Your task to perform on an android device: Open calendar and show me the second week of next month Image 0: 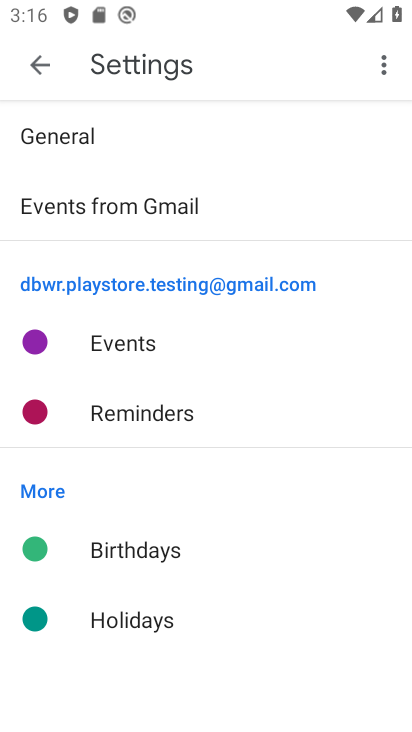
Step 0: press home button
Your task to perform on an android device: Open calendar and show me the second week of next month Image 1: 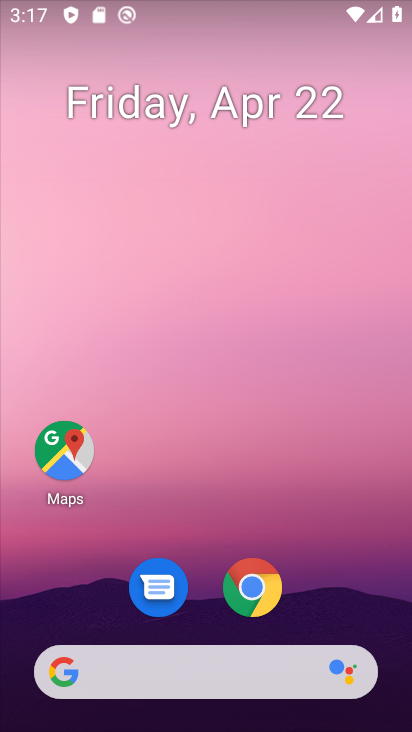
Step 1: drag from (308, 557) to (259, 24)
Your task to perform on an android device: Open calendar and show me the second week of next month Image 2: 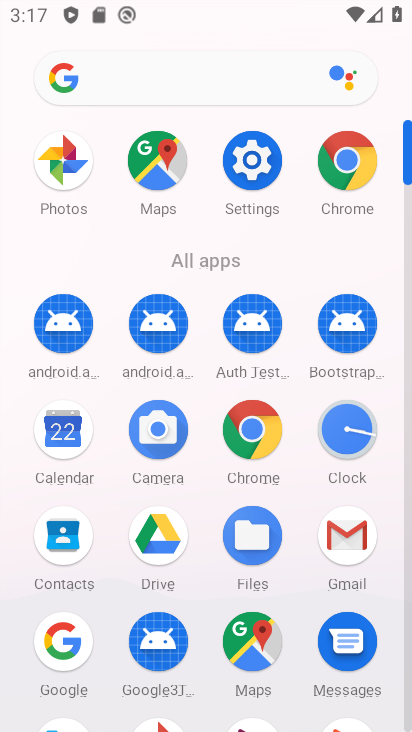
Step 2: click (56, 432)
Your task to perform on an android device: Open calendar and show me the second week of next month Image 3: 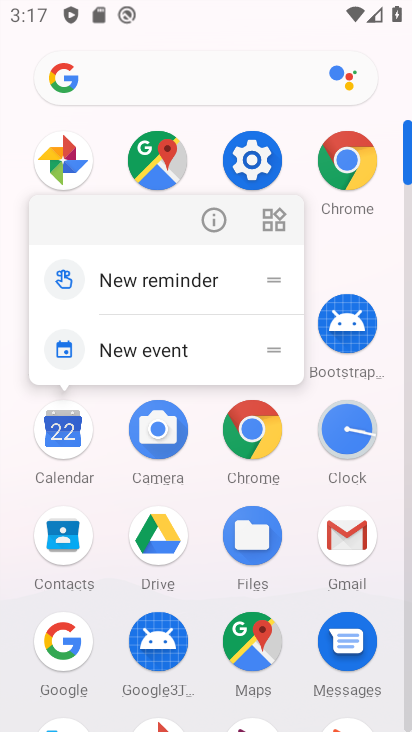
Step 3: click (56, 432)
Your task to perform on an android device: Open calendar and show me the second week of next month Image 4: 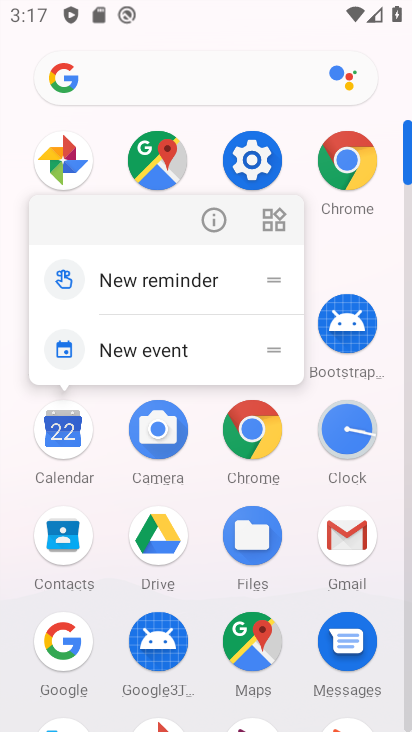
Step 4: click (56, 432)
Your task to perform on an android device: Open calendar and show me the second week of next month Image 5: 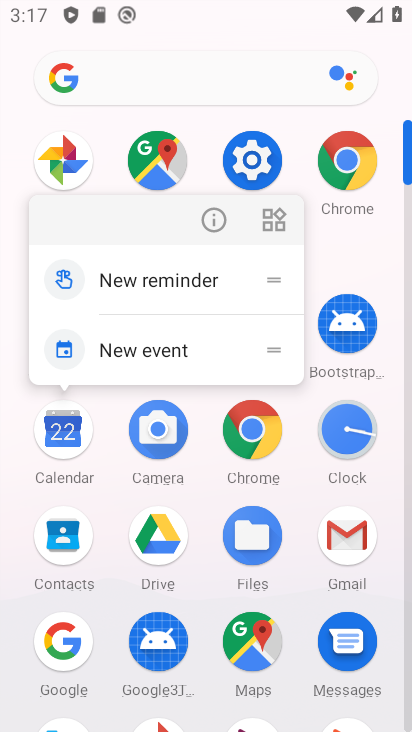
Step 5: click (55, 432)
Your task to perform on an android device: Open calendar and show me the second week of next month Image 6: 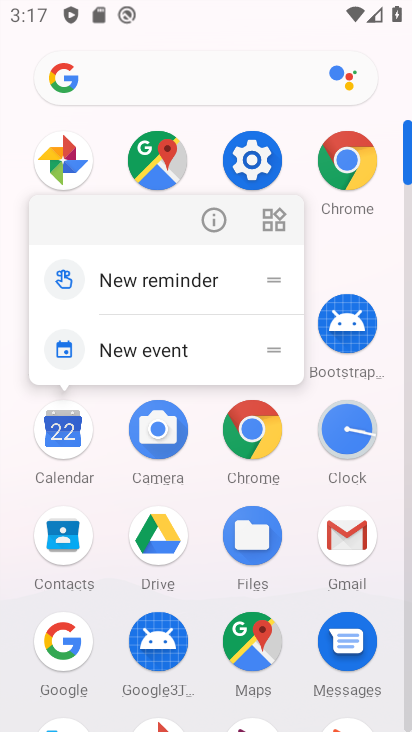
Step 6: click (55, 432)
Your task to perform on an android device: Open calendar and show me the second week of next month Image 7: 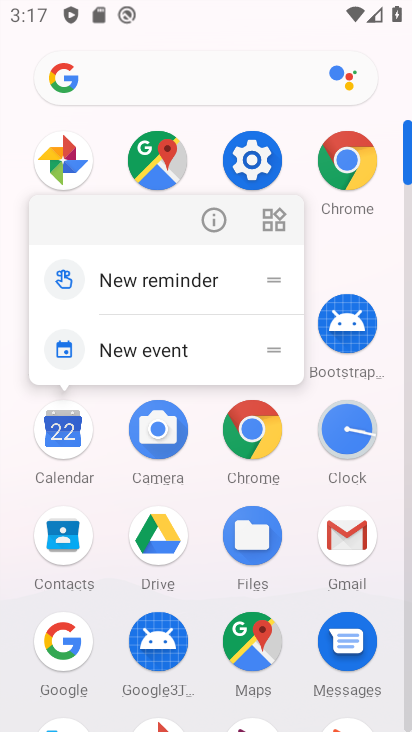
Step 7: click (55, 432)
Your task to perform on an android device: Open calendar and show me the second week of next month Image 8: 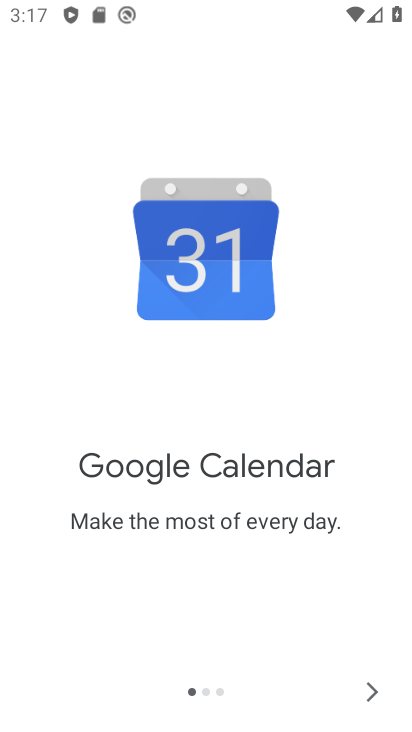
Step 8: click (382, 685)
Your task to perform on an android device: Open calendar and show me the second week of next month Image 9: 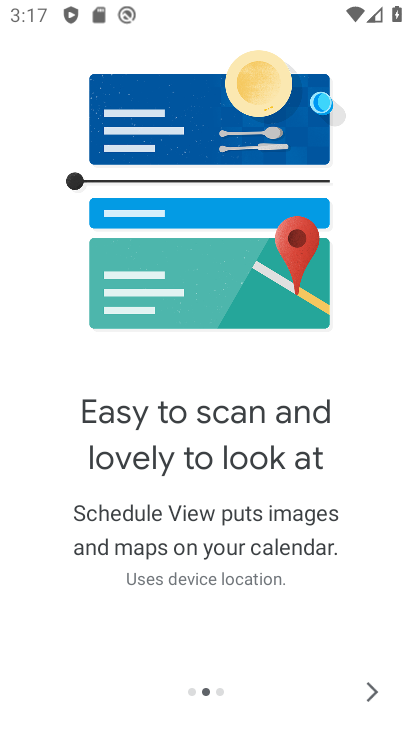
Step 9: click (374, 687)
Your task to perform on an android device: Open calendar and show me the second week of next month Image 10: 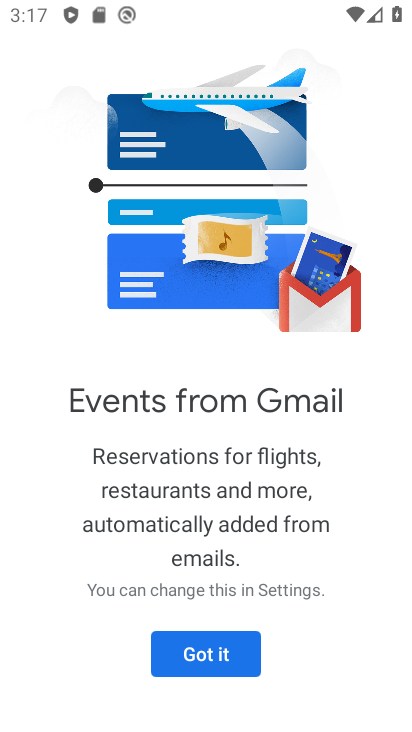
Step 10: click (229, 636)
Your task to perform on an android device: Open calendar and show me the second week of next month Image 11: 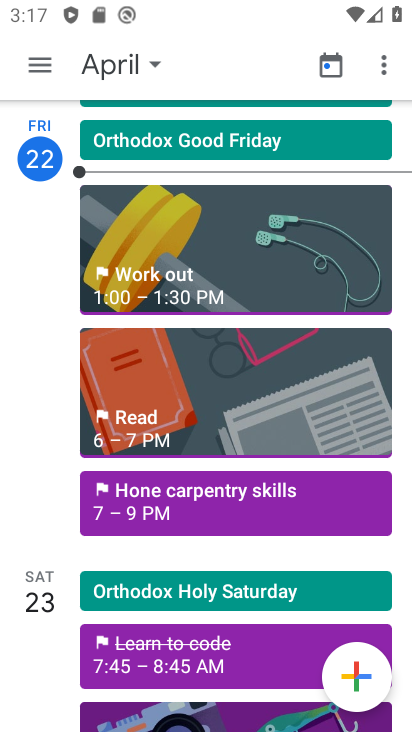
Step 11: click (17, 64)
Your task to perform on an android device: Open calendar and show me the second week of next month Image 12: 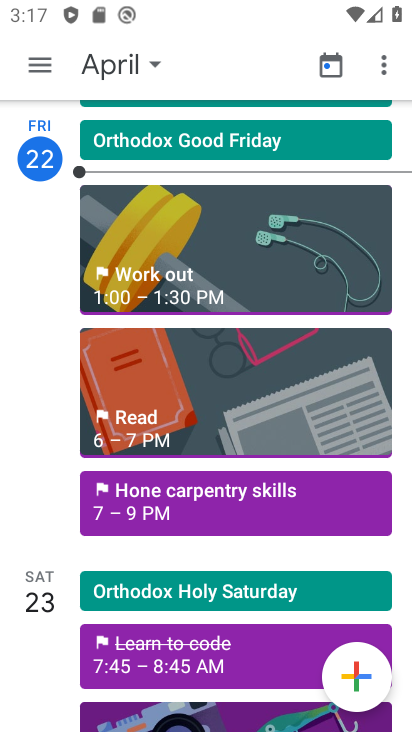
Step 12: click (45, 69)
Your task to perform on an android device: Open calendar and show me the second week of next month Image 13: 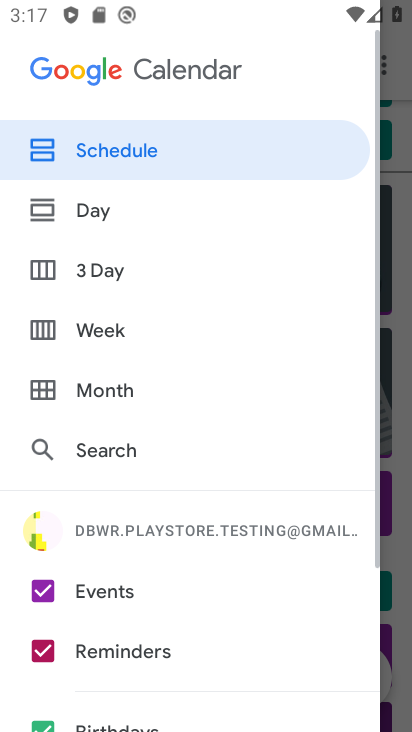
Step 13: click (128, 325)
Your task to perform on an android device: Open calendar and show me the second week of next month Image 14: 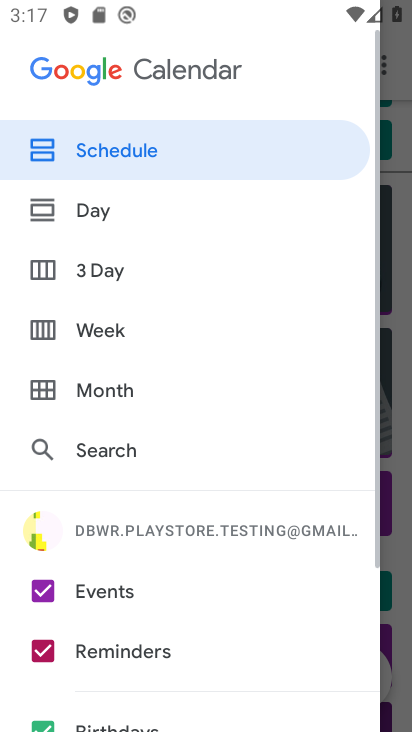
Step 14: click (109, 330)
Your task to perform on an android device: Open calendar and show me the second week of next month Image 15: 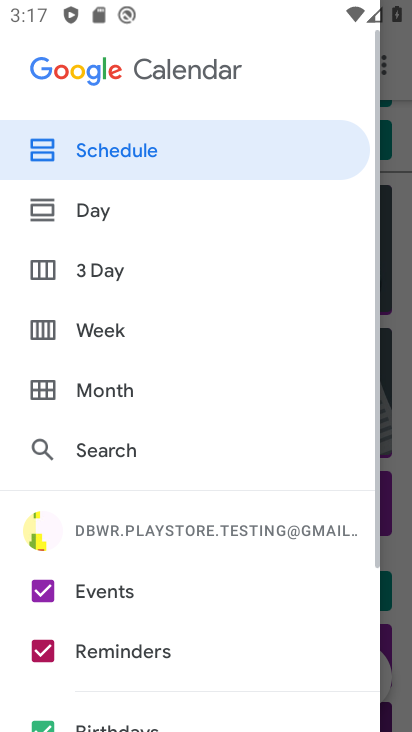
Step 15: click (109, 330)
Your task to perform on an android device: Open calendar and show me the second week of next month Image 16: 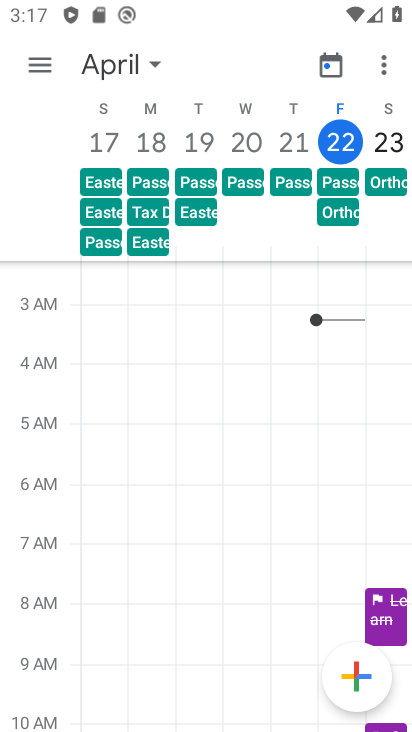
Step 16: click (135, 57)
Your task to perform on an android device: Open calendar and show me the second week of next month Image 17: 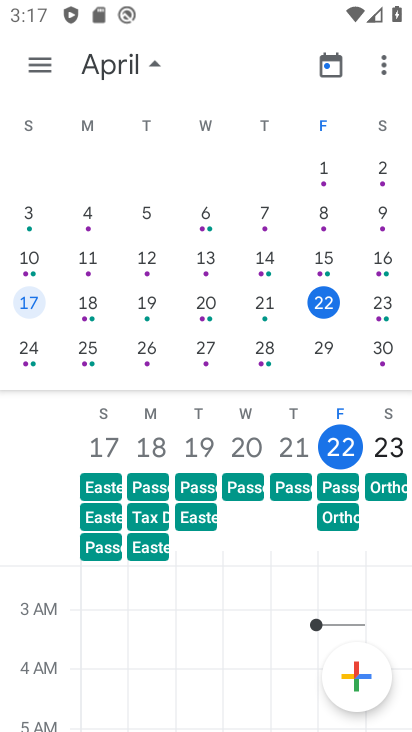
Step 17: drag from (312, 284) to (8, 192)
Your task to perform on an android device: Open calendar and show me the second week of next month Image 18: 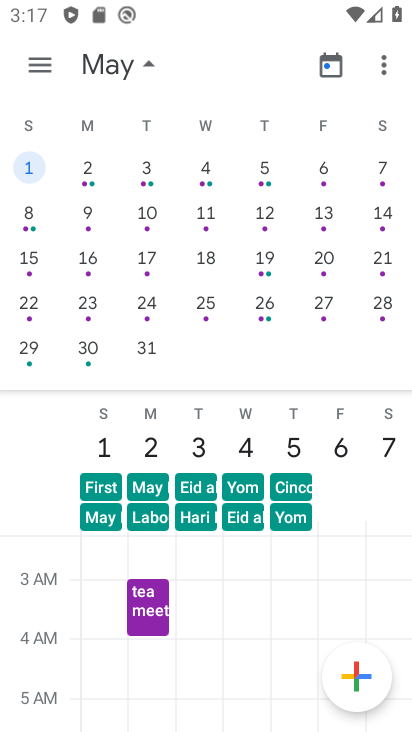
Step 18: click (147, 218)
Your task to perform on an android device: Open calendar and show me the second week of next month Image 19: 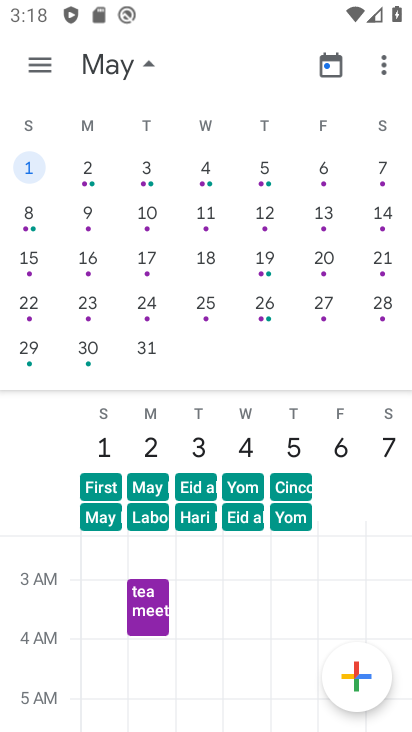
Step 19: click (214, 219)
Your task to perform on an android device: Open calendar and show me the second week of next month Image 20: 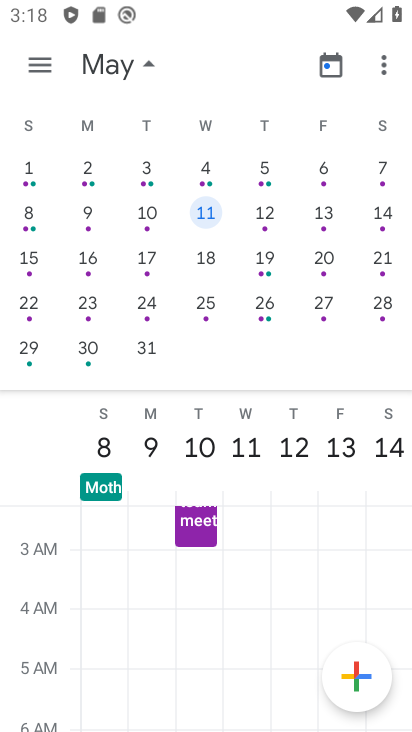
Step 20: task complete